Your task to perform on an android device: turn notification dots on Image 0: 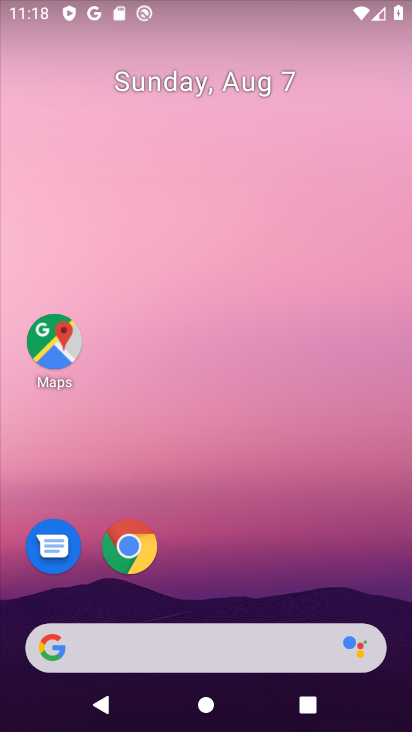
Step 0: drag from (217, 684) to (152, 298)
Your task to perform on an android device: turn notification dots on Image 1: 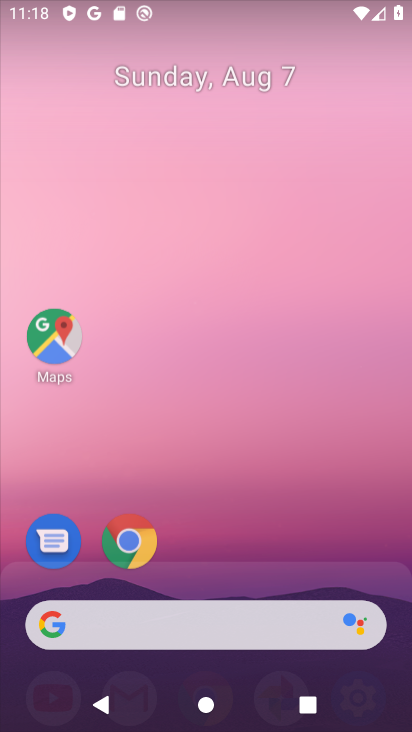
Step 1: drag from (190, 326) to (190, 224)
Your task to perform on an android device: turn notification dots on Image 2: 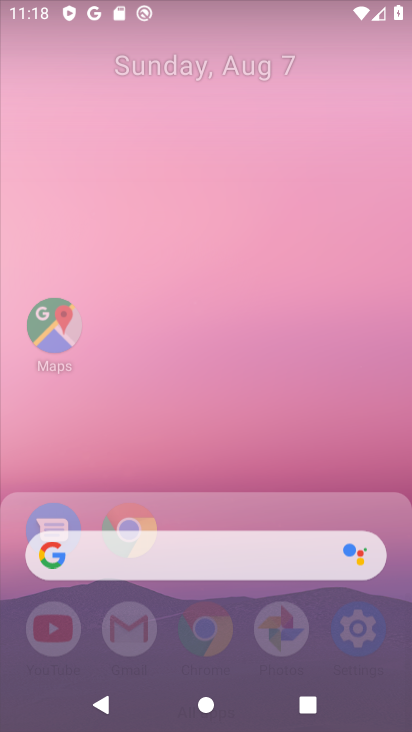
Step 2: drag from (231, 463) to (193, 223)
Your task to perform on an android device: turn notification dots on Image 3: 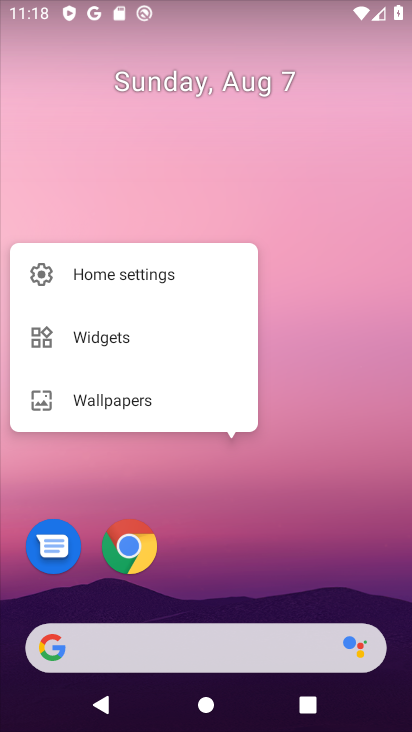
Step 3: drag from (223, 551) to (295, 226)
Your task to perform on an android device: turn notification dots on Image 4: 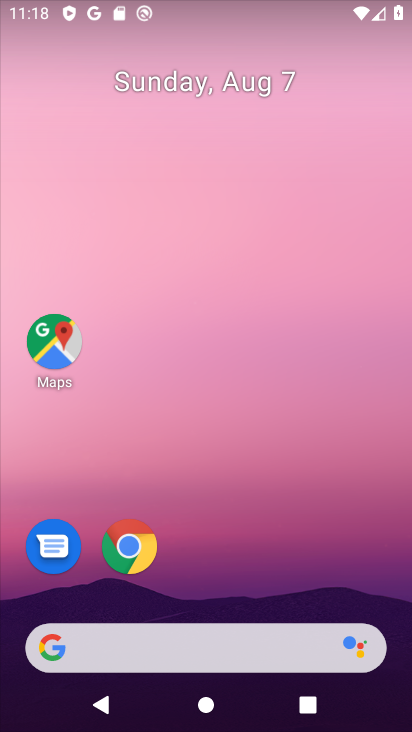
Step 4: press back button
Your task to perform on an android device: turn notification dots on Image 5: 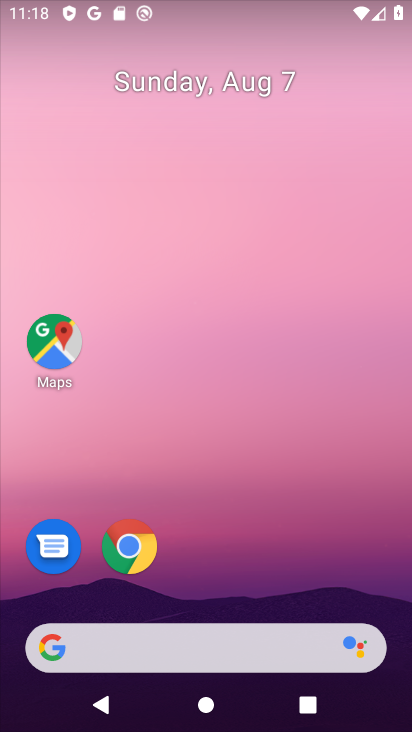
Step 5: press back button
Your task to perform on an android device: turn notification dots on Image 6: 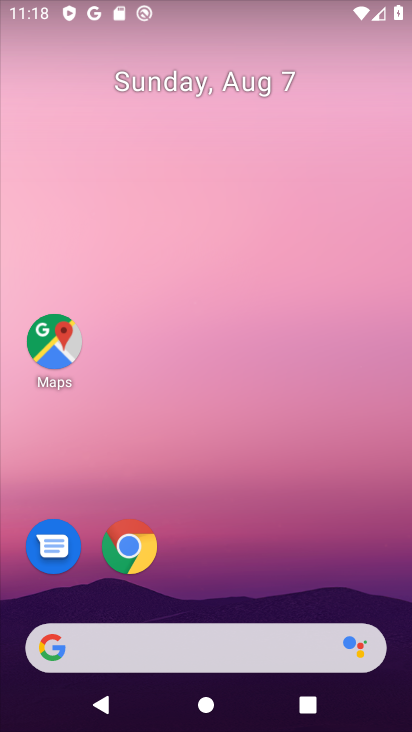
Step 6: drag from (239, 590) to (225, 267)
Your task to perform on an android device: turn notification dots on Image 7: 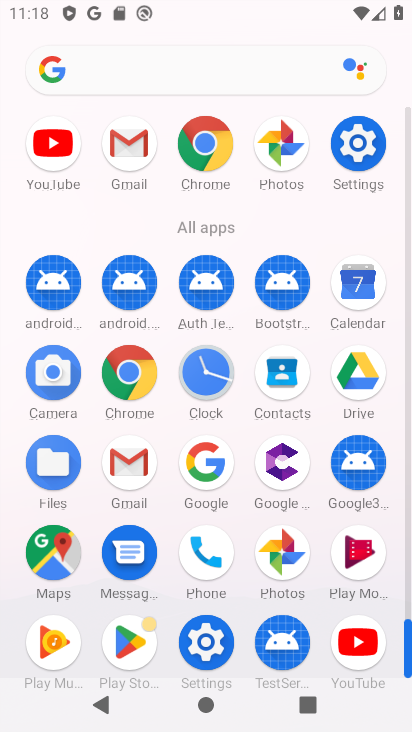
Step 7: click (364, 150)
Your task to perform on an android device: turn notification dots on Image 8: 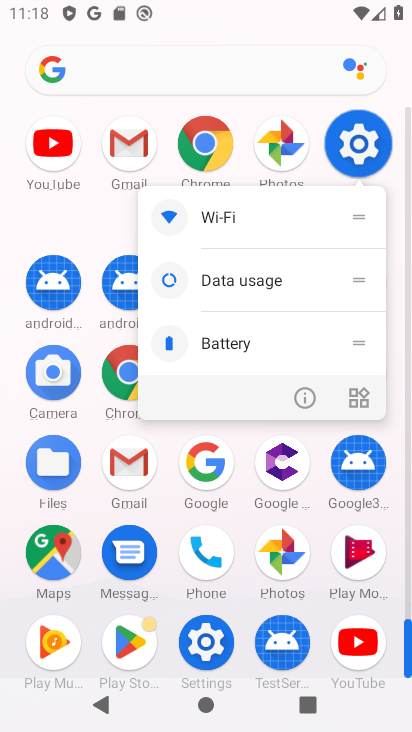
Step 8: click (363, 149)
Your task to perform on an android device: turn notification dots on Image 9: 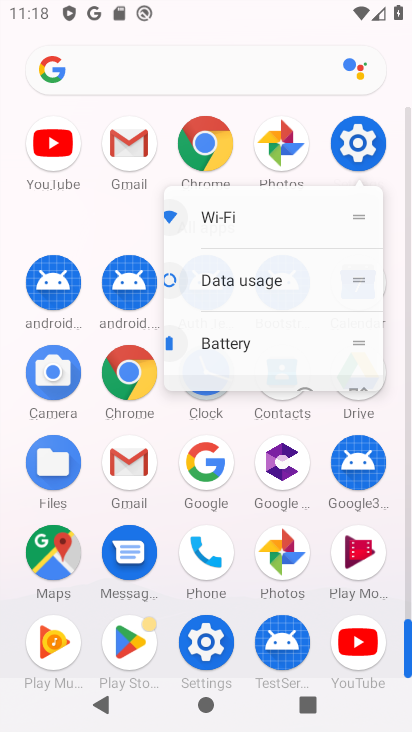
Step 9: click (363, 149)
Your task to perform on an android device: turn notification dots on Image 10: 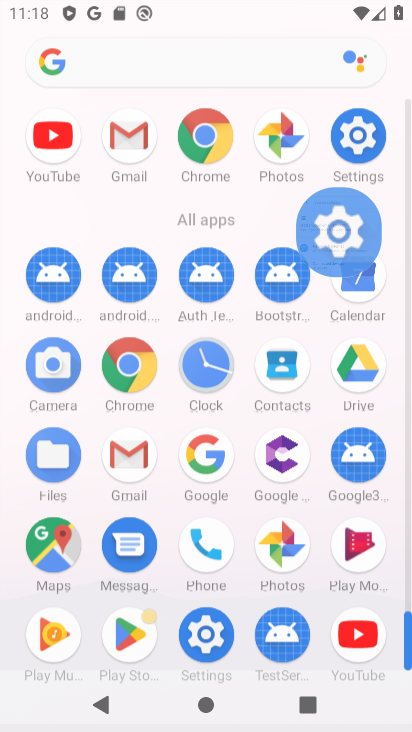
Step 10: click (361, 152)
Your task to perform on an android device: turn notification dots on Image 11: 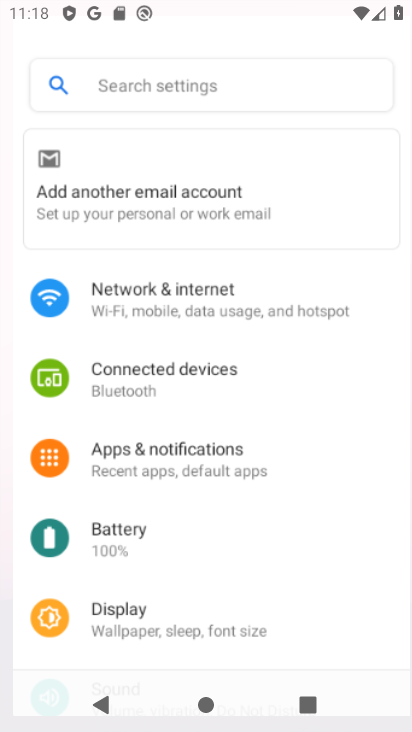
Step 11: click (361, 152)
Your task to perform on an android device: turn notification dots on Image 12: 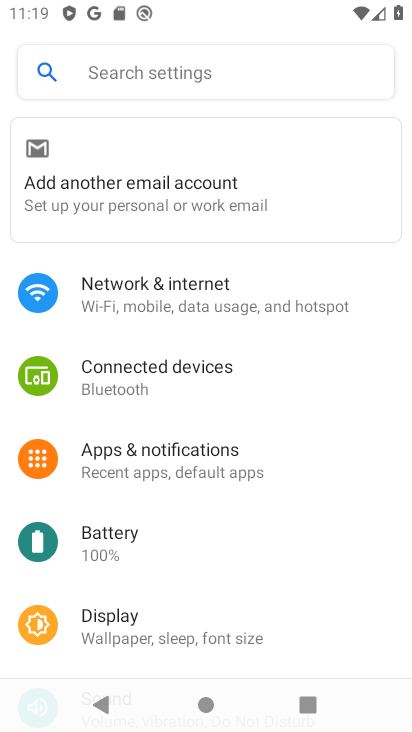
Step 12: click (135, 467)
Your task to perform on an android device: turn notification dots on Image 13: 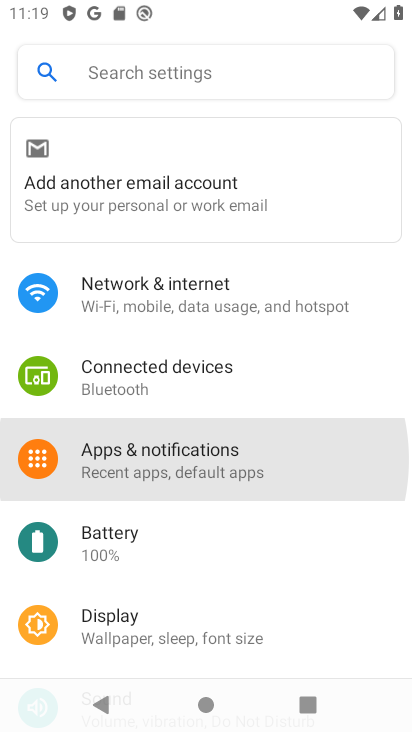
Step 13: click (134, 465)
Your task to perform on an android device: turn notification dots on Image 14: 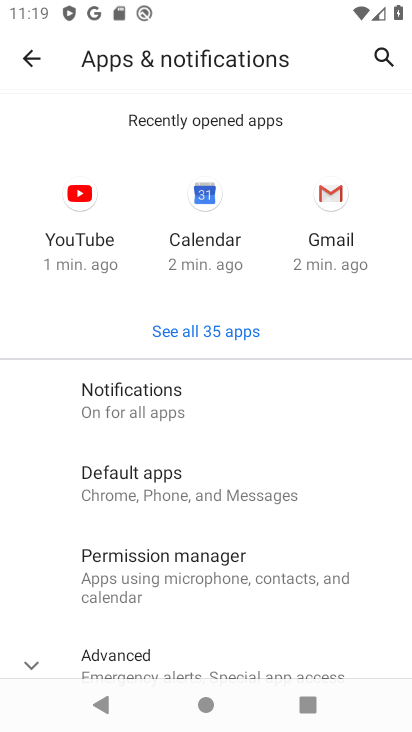
Step 14: click (113, 407)
Your task to perform on an android device: turn notification dots on Image 15: 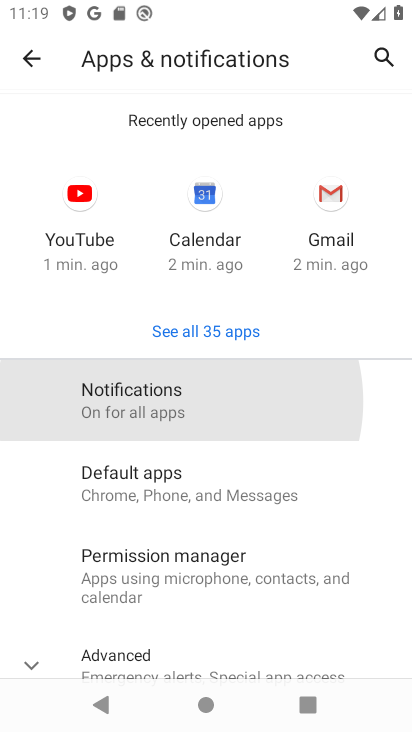
Step 15: click (125, 408)
Your task to perform on an android device: turn notification dots on Image 16: 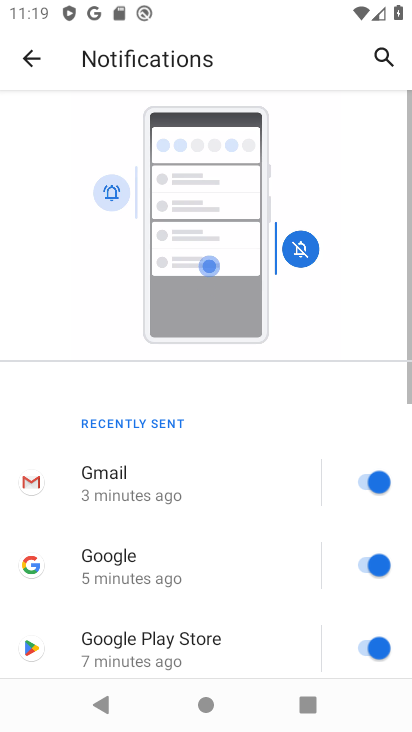
Step 16: click (171, 247)
Your task to perform on an android device: turn notification dots on Image 17: 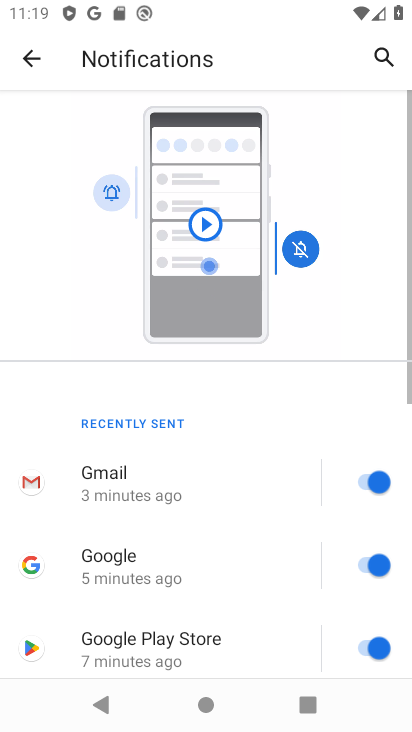
Step 17: drag from (216, 426) to (204, 231)
Your task to perform on an android device: turn notification dots on Image 18: 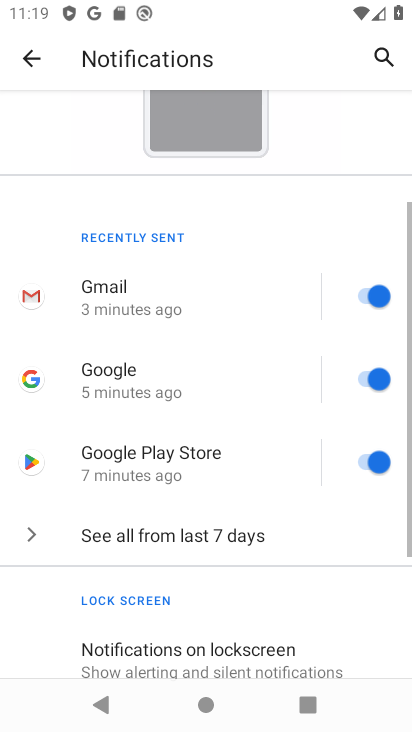
Step 18: drag from (249, 426) to (247, 300)
Your task to perform on an android device: turn notification dots on Image 19: 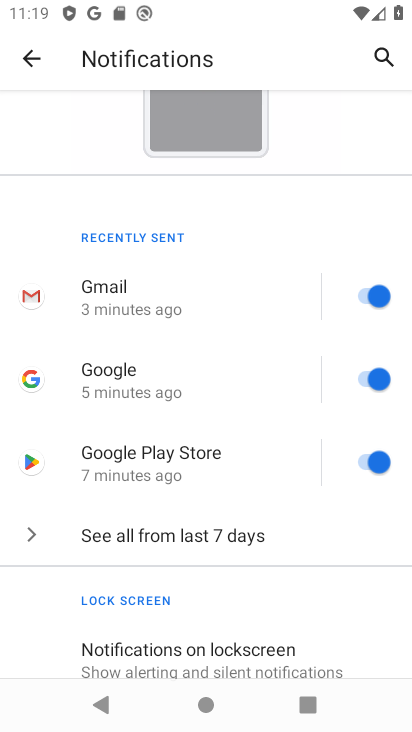
Step 19: drag from (277, 416) to (277, 252)
Your task to perform on an android device: turn notification dots on Image 20: 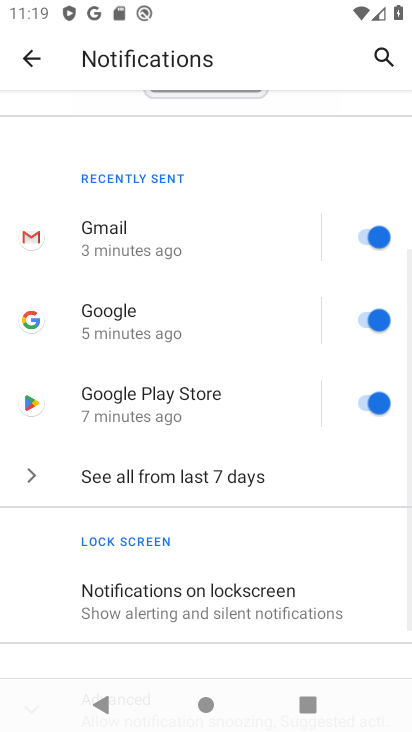
Step 20: drag from (189, 622) to (185, 349)
Your task to perform on an android device: turn notification dots on Image 21: 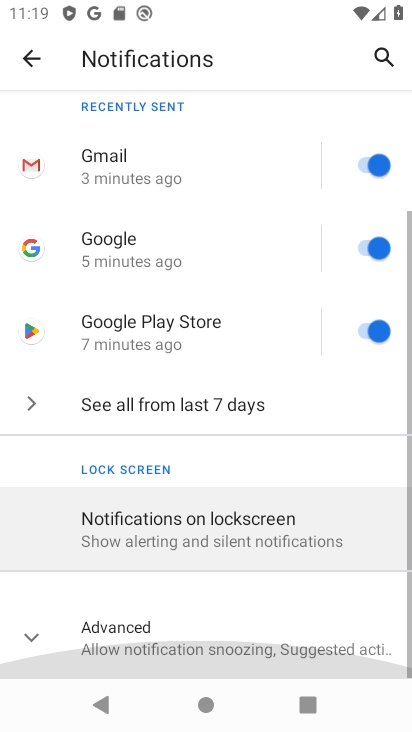
Step 21: drag from (204, 498) to (224, 303)
Your task to perform on an android device: turn notification dots on Image 22: 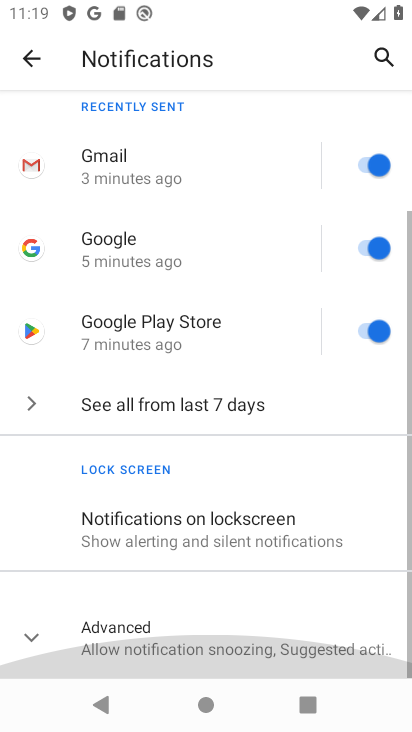
Step 22: drag from (234, 475) to (208, 302)
Your task to perform on an android device: turn notification dots on Image 23: 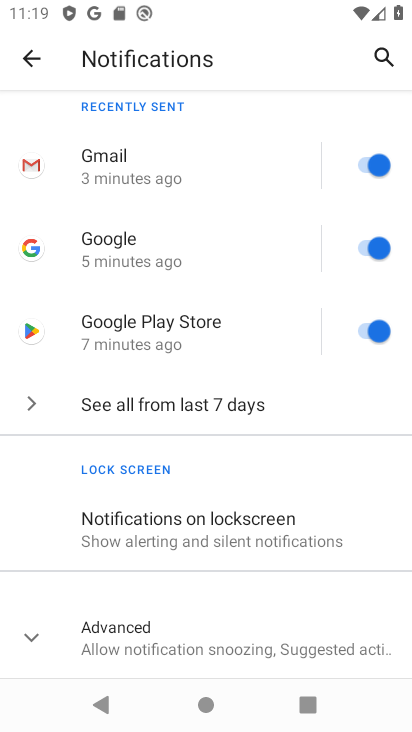
Step 23: click (132, 631)
Your task to perform on an android device: turn notification dots on Image 24: 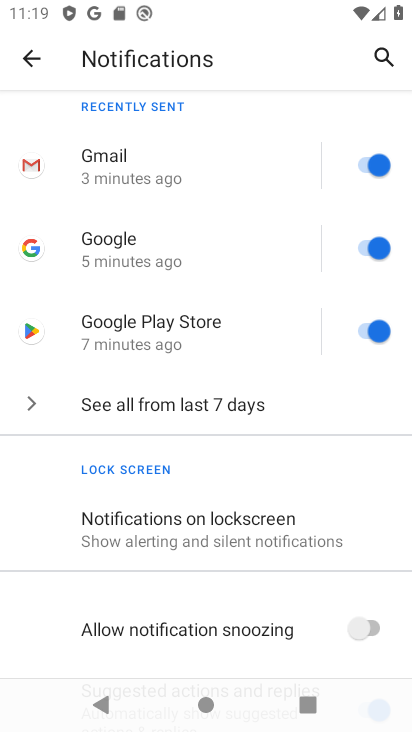
Step 24: drag from (231, 518) to (218, 367)
Your task to perform on an android device: turn notification dots on Image 25: 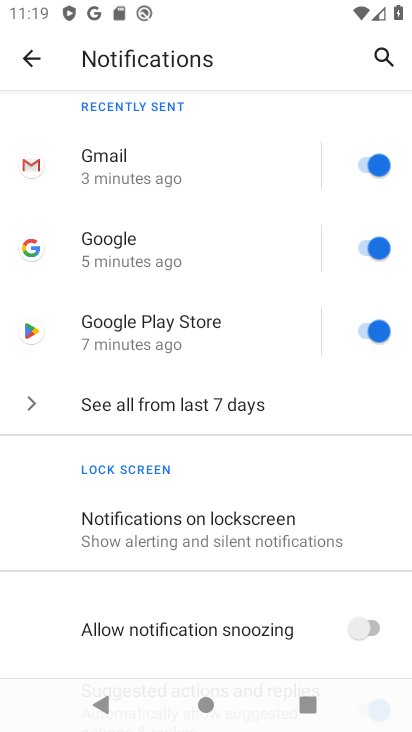
Step 25: click (185, 301)
Your task to perform on an android device: turn notification dots on Image 26: 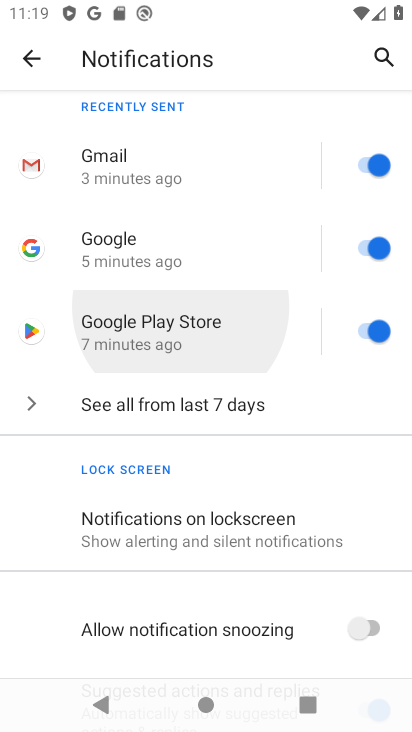
Step 26: click (188, 297)
Your task to perform on an android device: turn notification dots on Image 27: 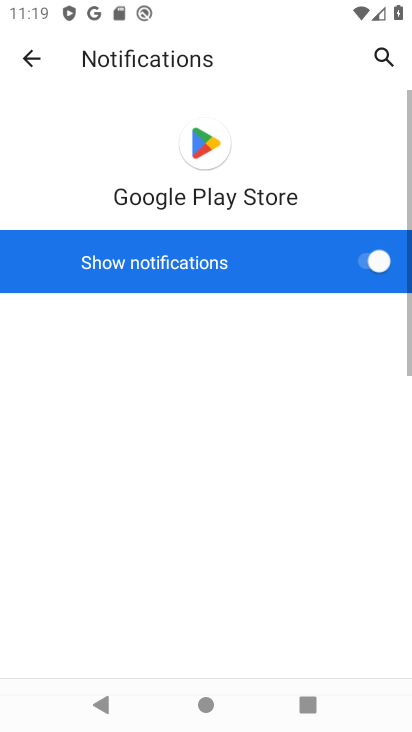
Step 27: drag from (171, 398) to (164, 266)
Your task to perform on an android device: turn notification dots on Image 28: 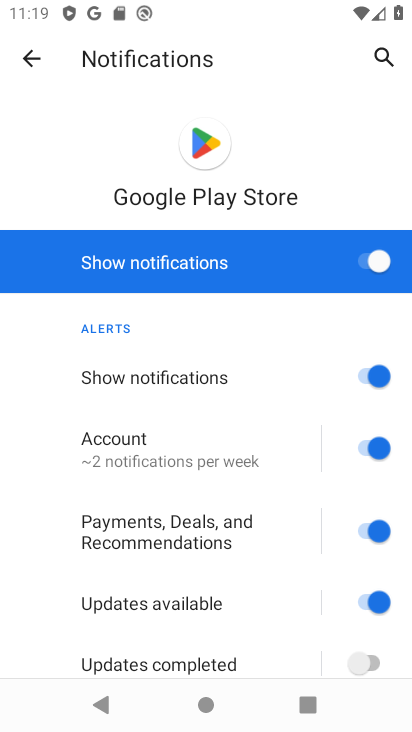
Step 28: click (27, 58)
Your task to perform on an android device: turn notification dots on Image 29: 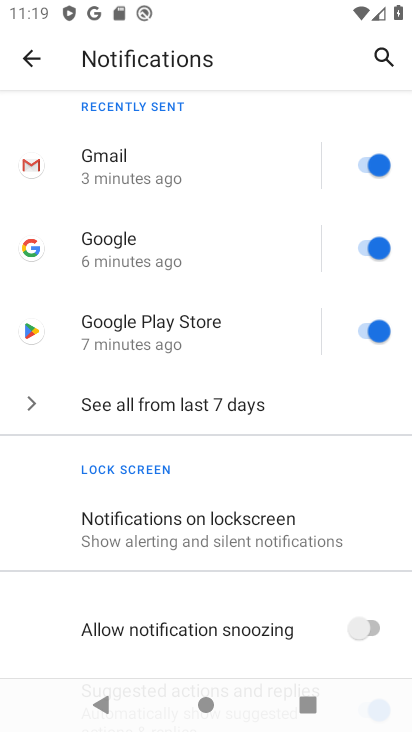
Step 29: task complete